Your task to perform on an android device: turn on sleep mode Image 0: 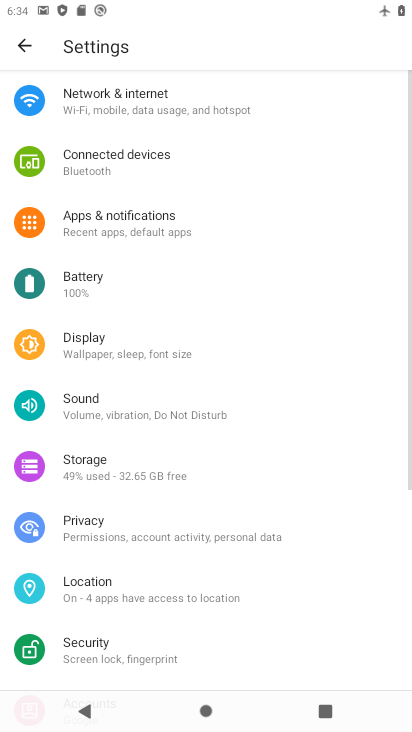
Step 0: click (81, 335)
Your task to perform on an android device: turn on sleep mode Image 1: 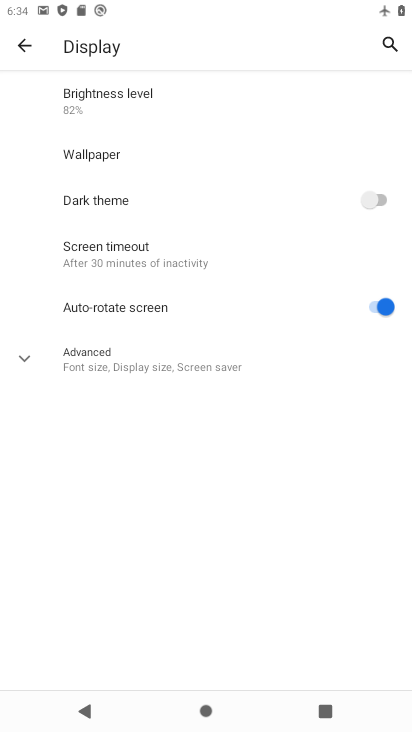
Step 1: task complete